Your task to perform on an android device: open app "Booking.com: Hotels and more" (install if not already installed) and enter user name: "misting@outlook.com" and password: "blandly" Image 0: 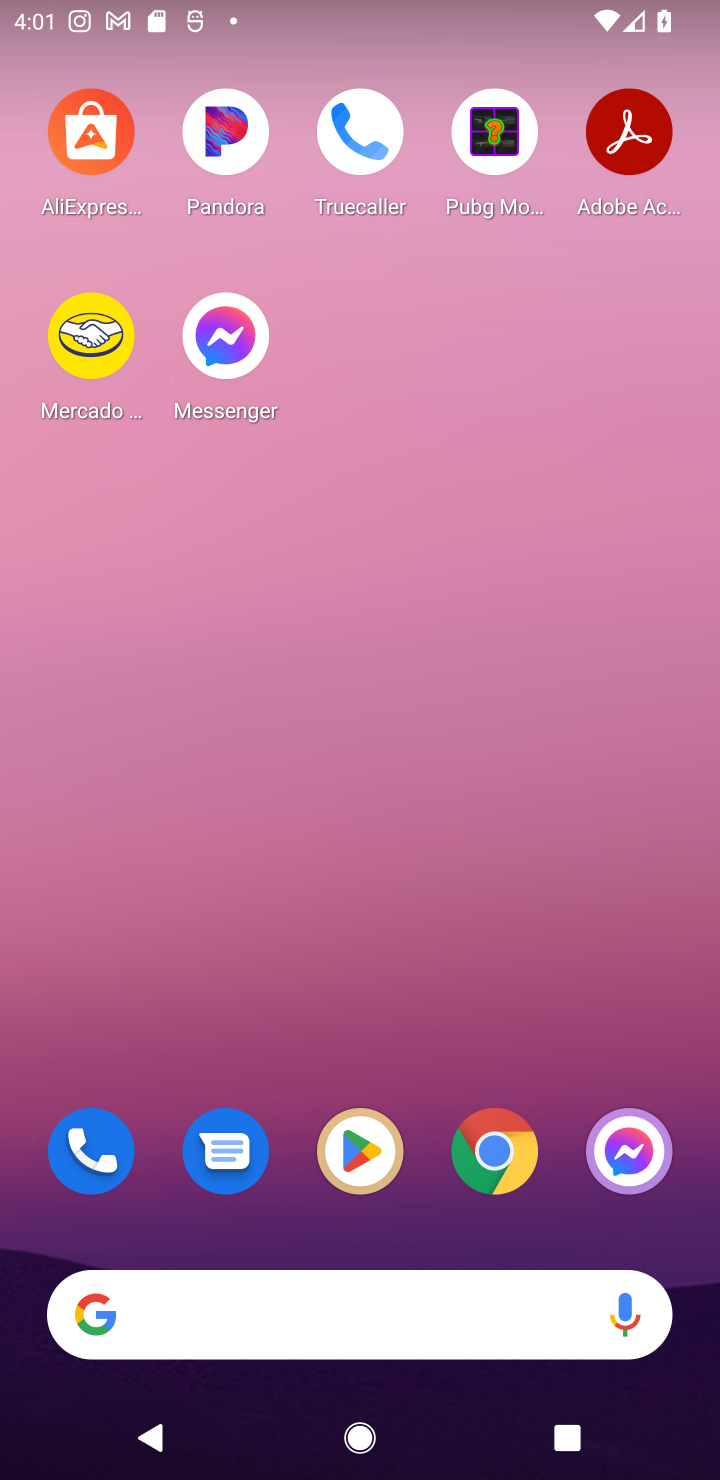
Step 0: press home button
Your task to perform on an android device: open app "Booking.com: Hotels and more" (install if not already installed) and enter user name: "misting@outlook.com" and password: "blandly" Image 1: 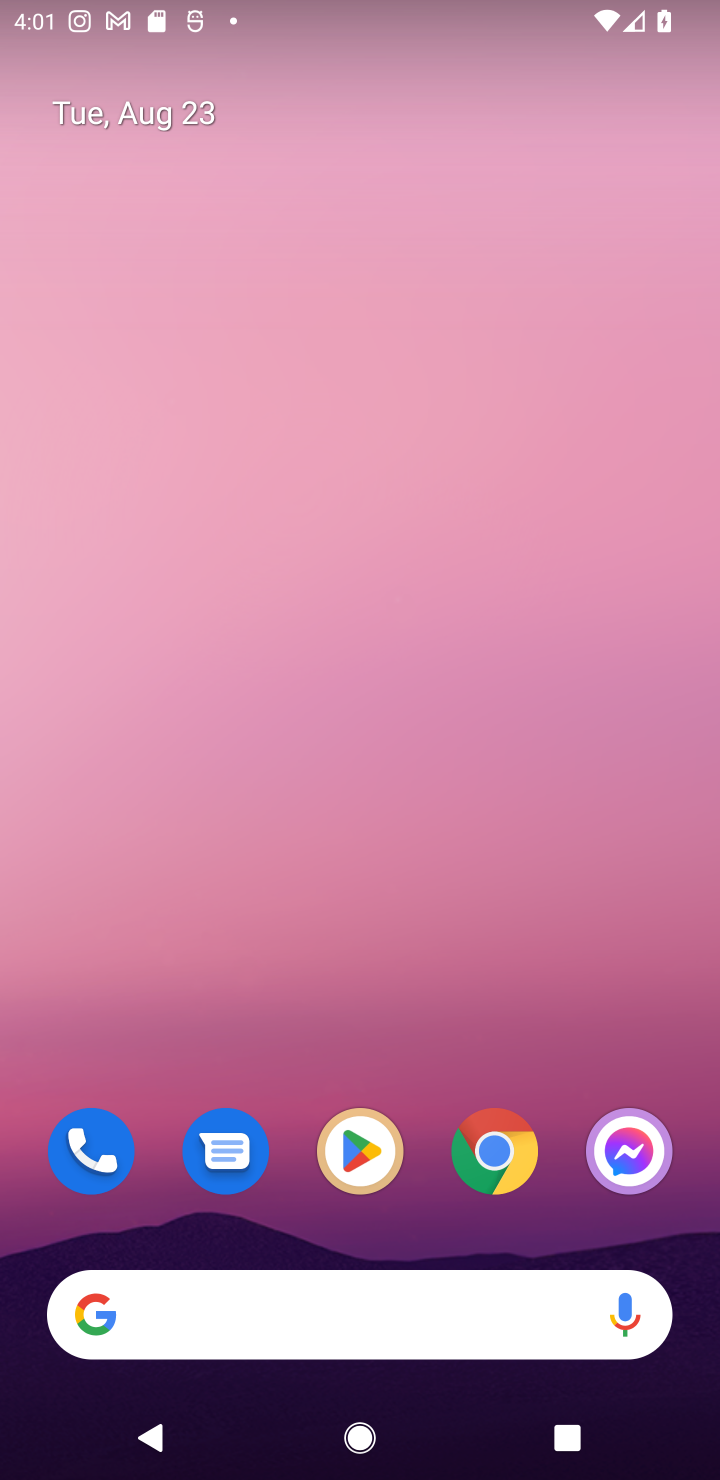
Step 1: click (365, 1146)
Your task to perform on an android device: open app "Booking.com: Hotels and more" (install if not already installed) and enter user name: "misting@outlook.com" and password: "blandly" Image 2: 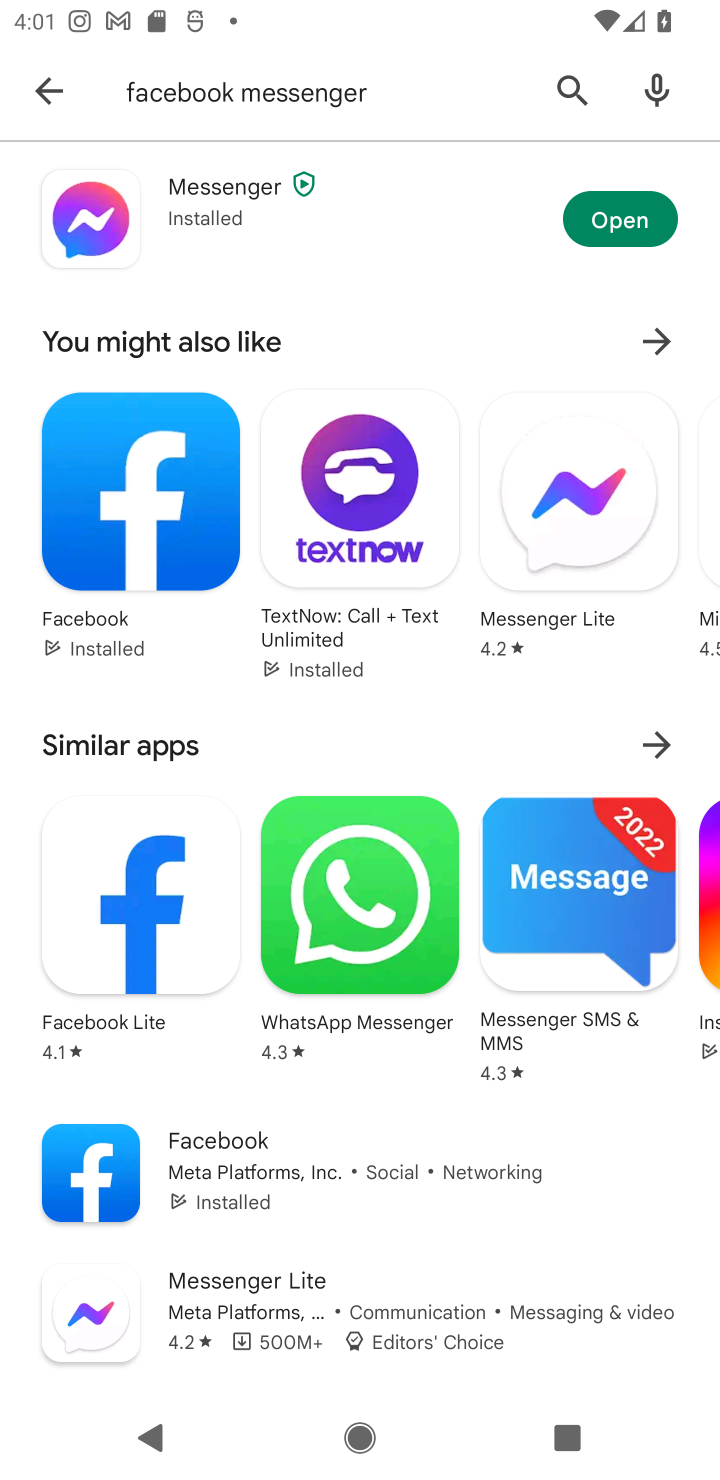
Step 2: click (365, 1152)
Your task to perform on an android device: open app "Booking.com: Hotels and more" (install if not already installed) and enter user name: "misting@outlook.com" and password: "blandly" Image 3: 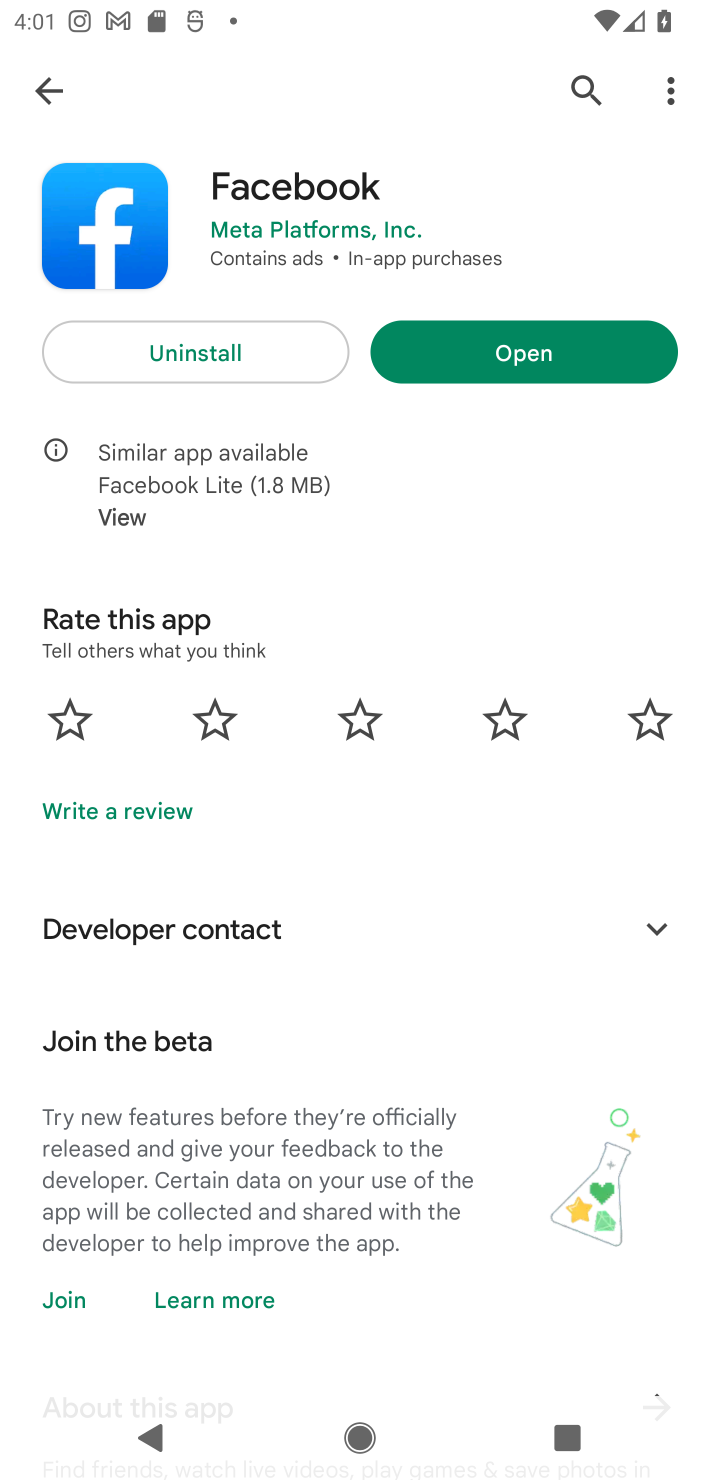
Step 3: click (593, 87)
Your task to perform on an android device: open app "Booking.com: Hotels and more" (install if not already installed) and enter user name: "misting@outlook.com" and password: "blandly" Image 4: 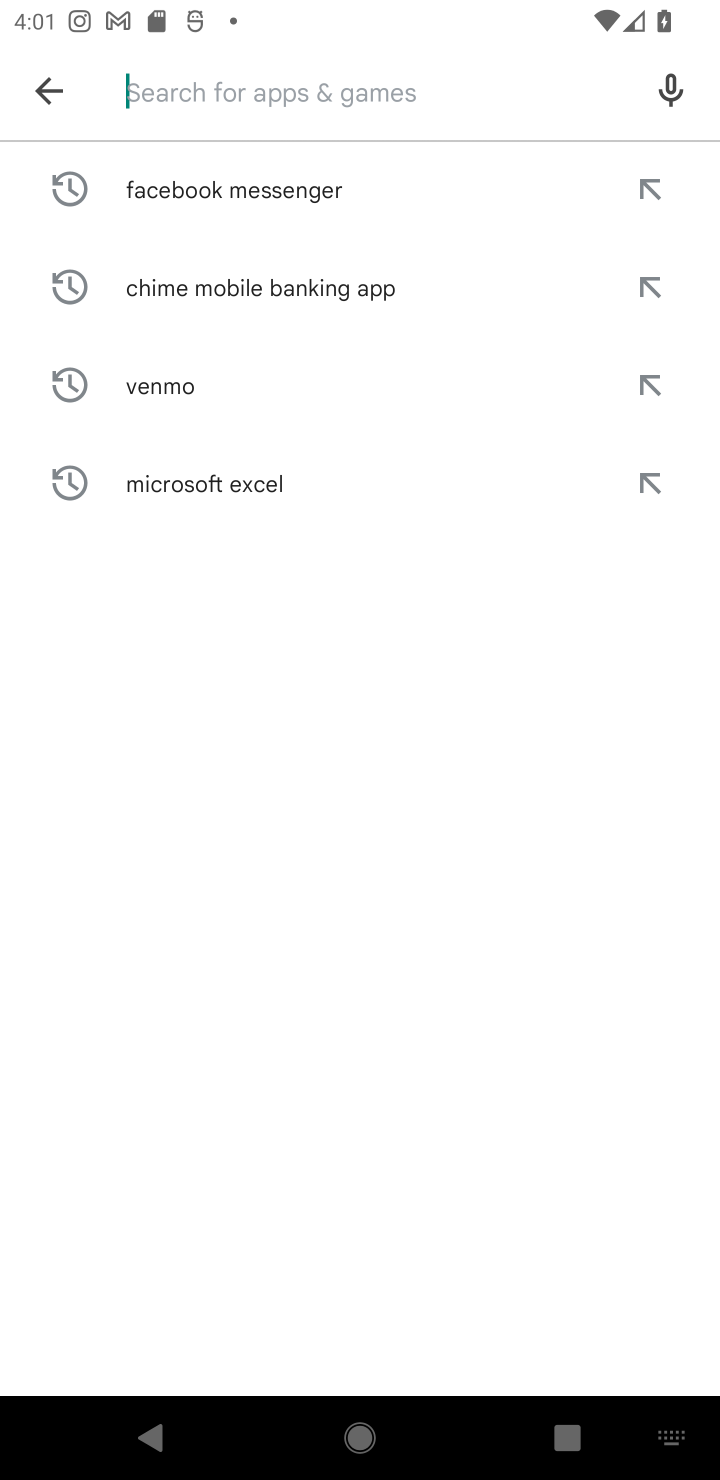
Step 4: type "Booking.com: Hotels and more"
Your task to perform on an android device: open app "Booking.com: Hotels and more" (install if not already installed) and enter user name: "misting@outlook.com" and password: "blandly" Image 5: 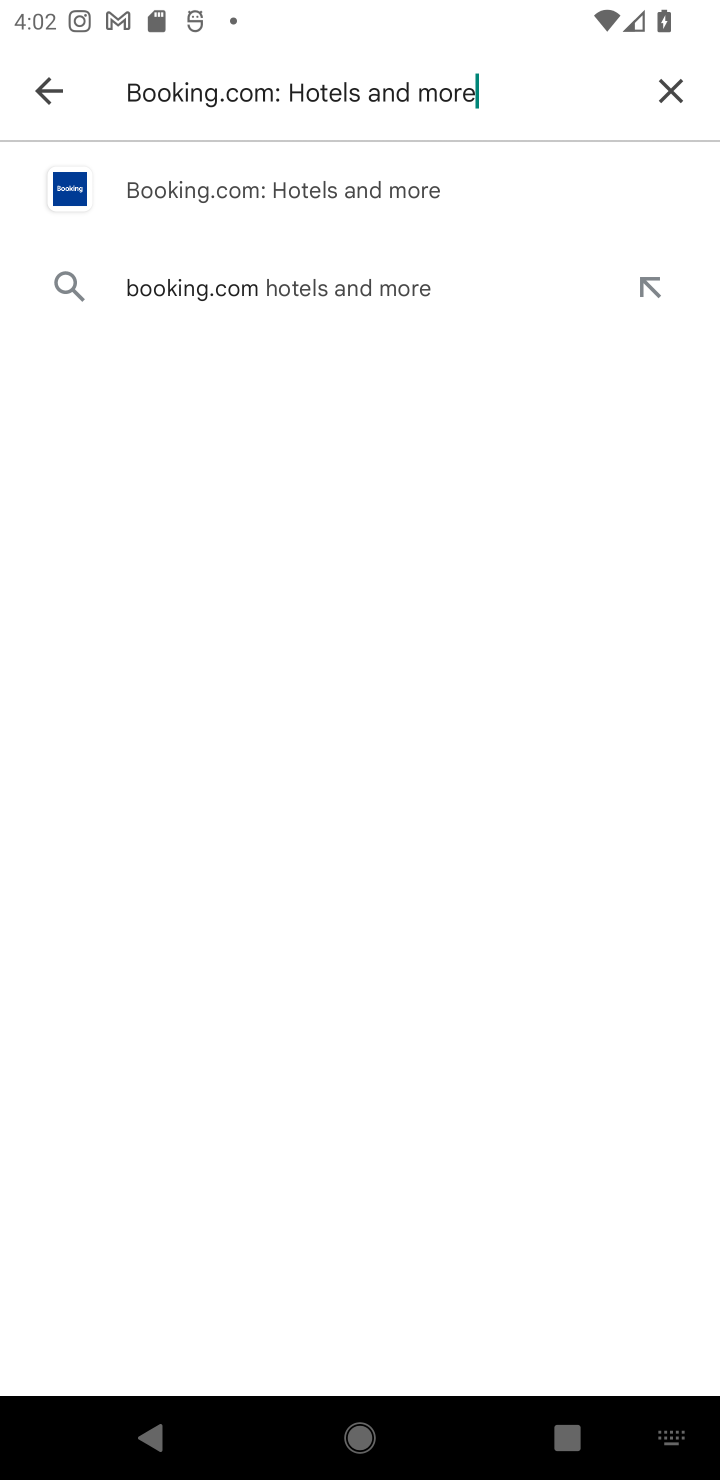
Step 5: click (282, 192)
Your task to perform on an android device: open app "Booking.com: Hotels and more" (install if not already installed) and enter user name: "misting@outlook.com" and password: "blandly" Image 6: 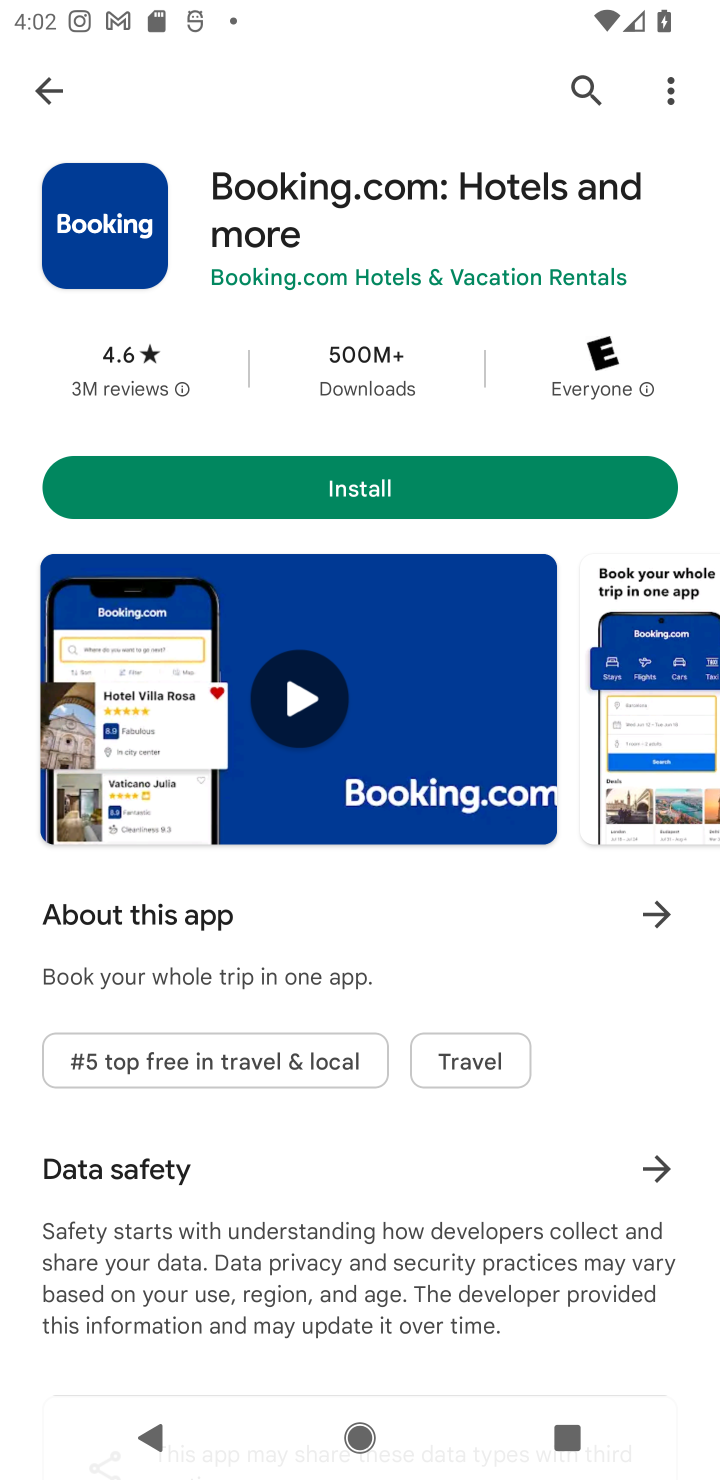
Step 6: click (405, 488)
Your task to perform on an android device: open app "Booking.com: Hotels and more" (install if not already installed) and enter user name: "misting@outlook.com" and password: "blandly" Image 7: 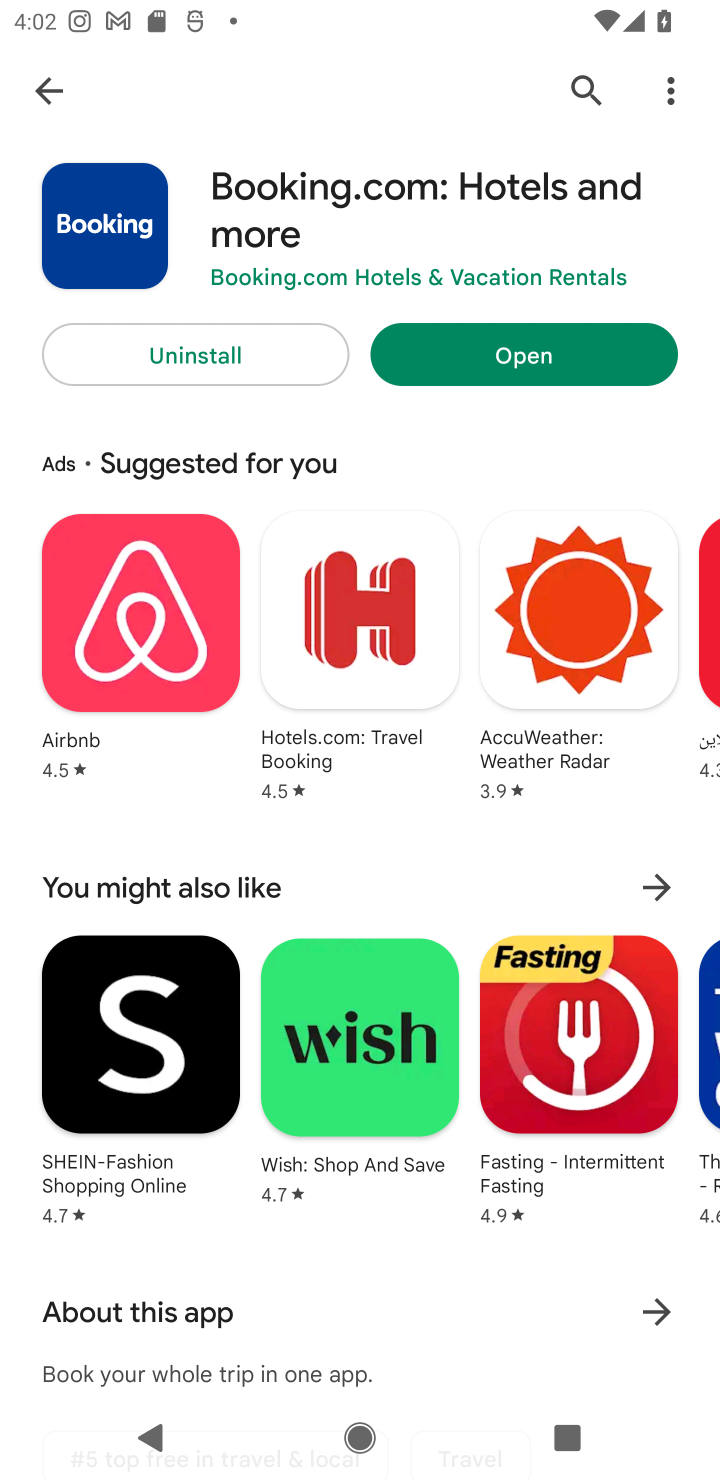
Step 7: click (564, 363)
Your task to perform on an android device: open app "Booking.com: Hotels and more" (install if not already installed) and enter user name: "misting@outlook.com" and password: "blandly" Image 8: 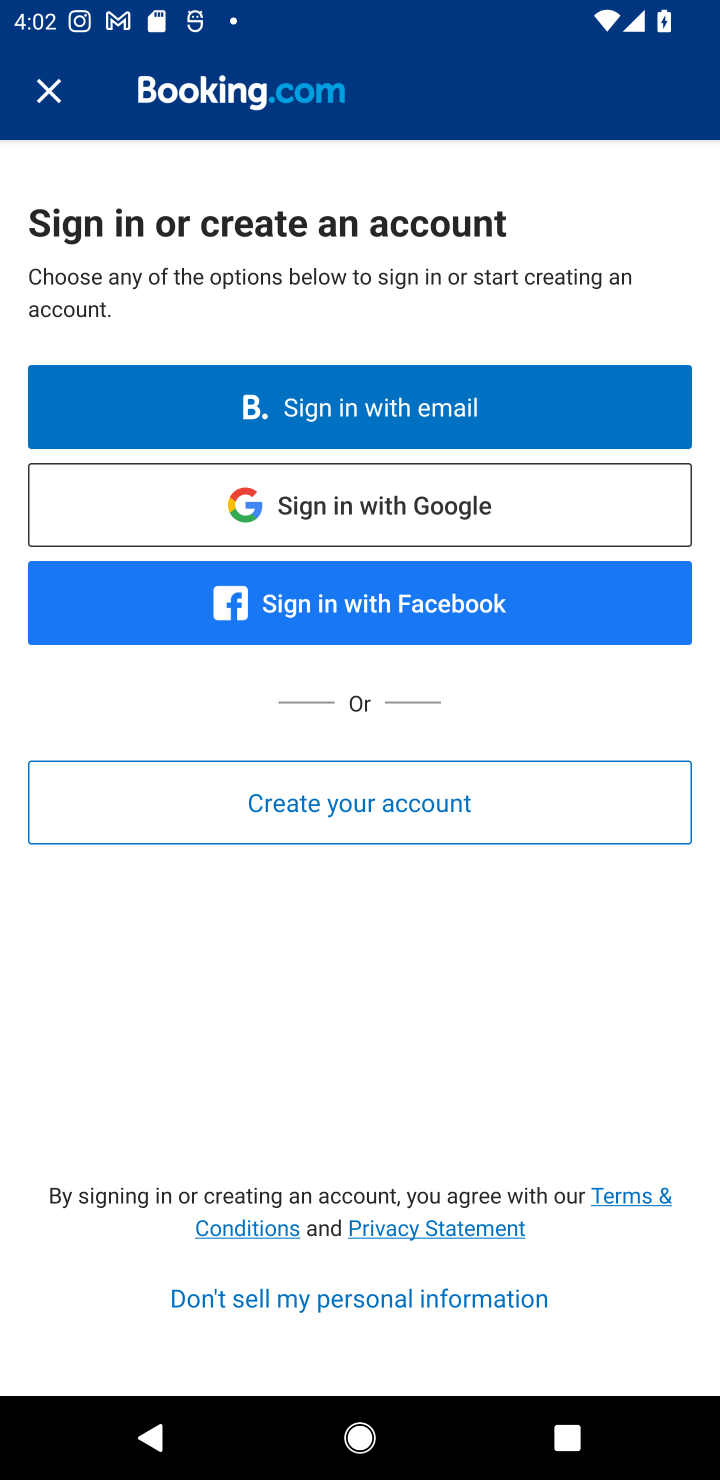
Step 8: click (423, 403)
Your task to perform on an android device: open app "Booking.com: Hotels and more" (install if not already installed) and enter user name: "misting@outlook.com" and password: "blandly" Image 9: 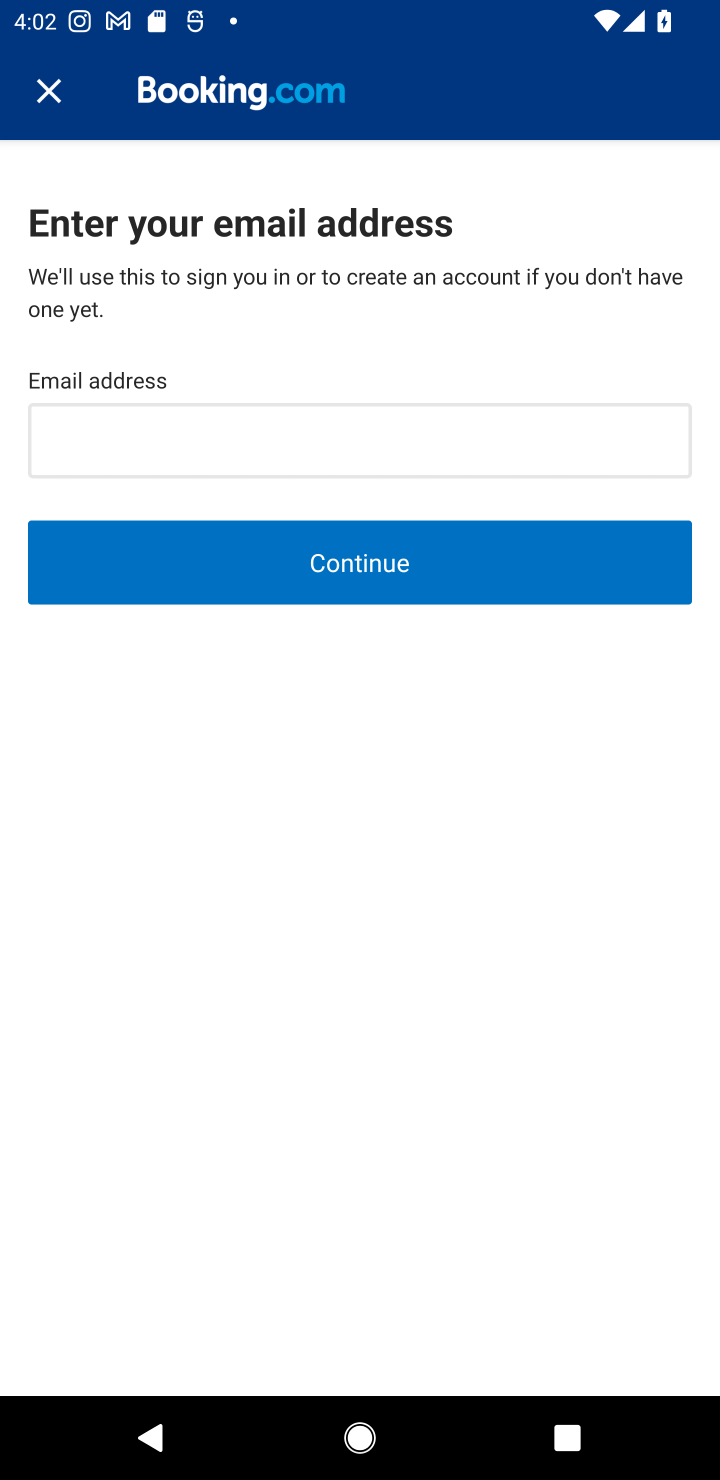
Step 9: click (101, 439)
Your task to perform on an android device: open app "Booking.com: Hotels and more" (install if not already installed) and enter user name: "misting@outlook.com" and password: "blandly" Image 10: 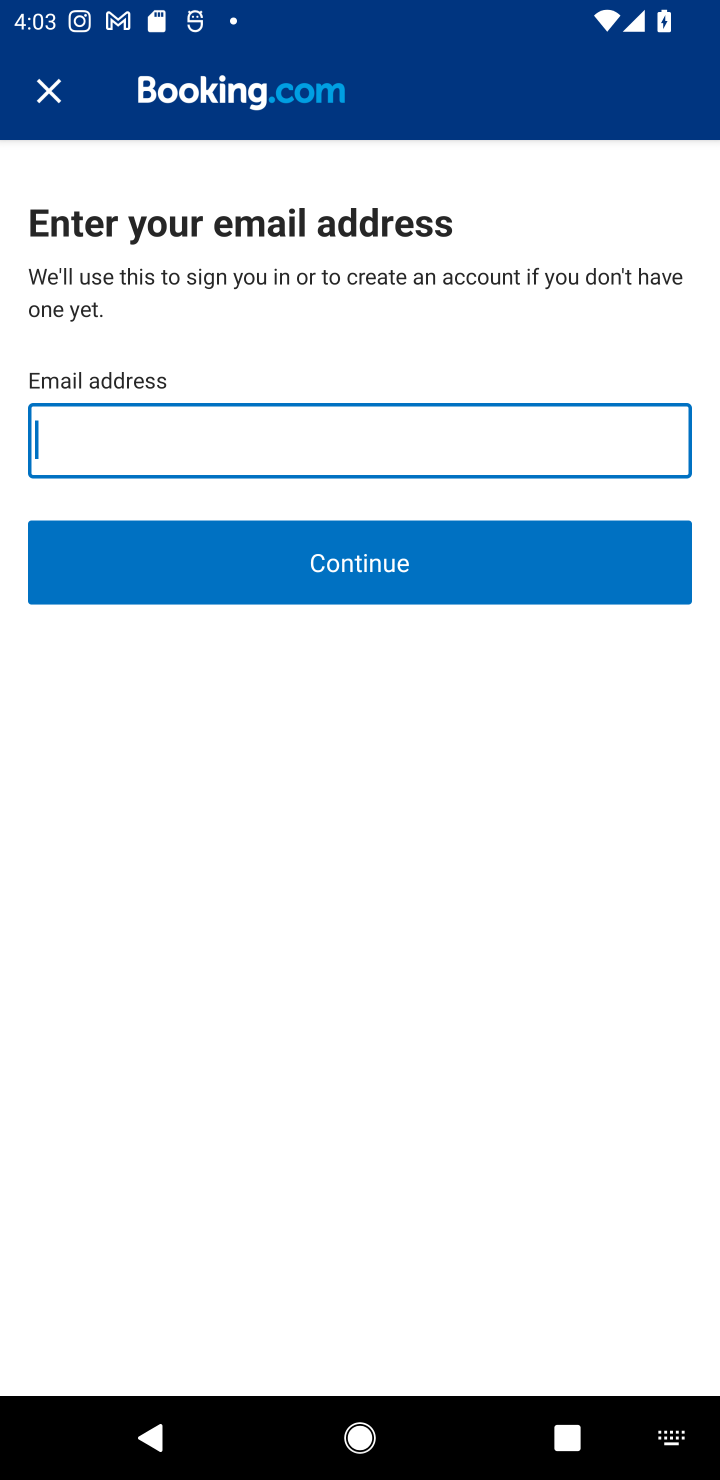
Step 10: type "misting@outlook.com"
Your task to perform on an android device: open app "Booking.com: Hotels and more" (install if not already installed) and enter user name: "misting@outlook.com" and password: "blandly" Image 11: 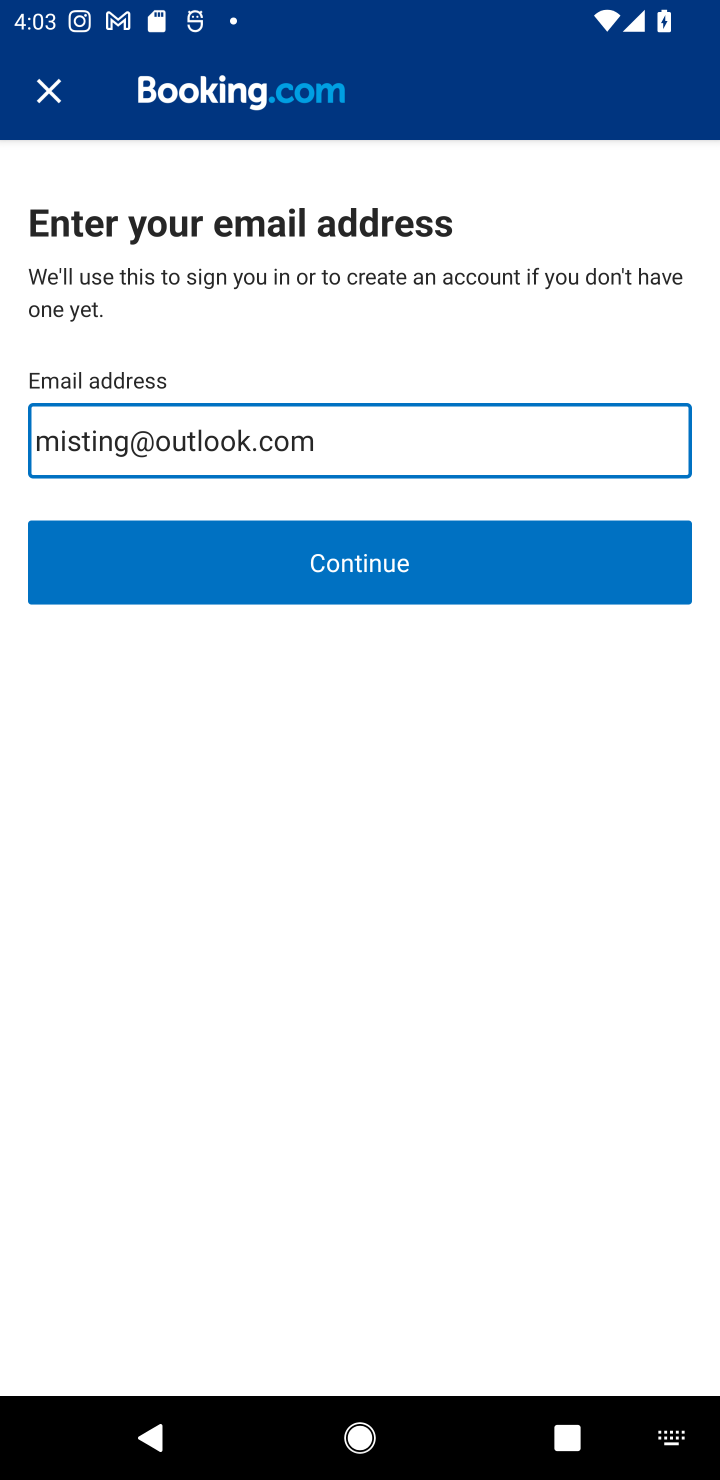
Step 11: click (366, 565)
Your task to perform on an android device: open app "Booking.com: Hotels and more" (install if not already installed) and enter user name: "misting@outlook.com" and password: "blandly" Image 12: 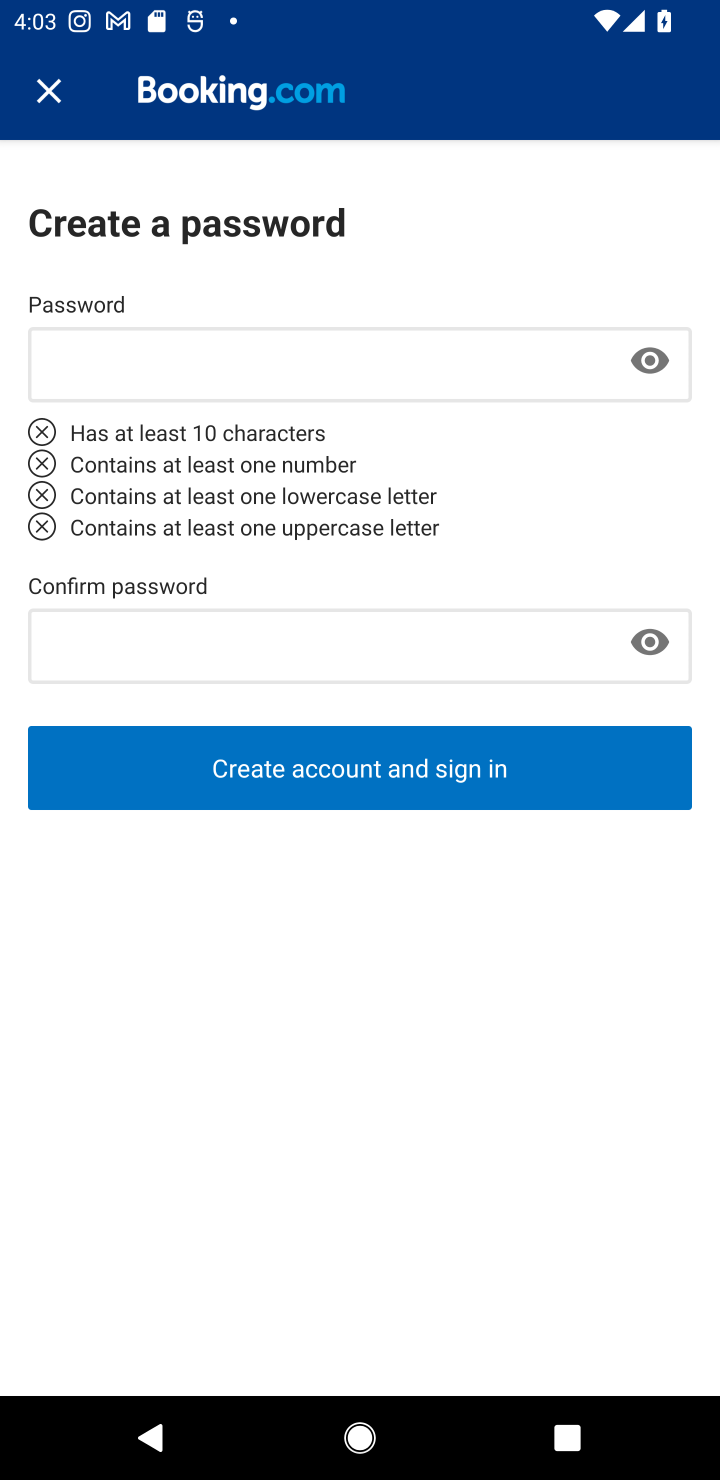
Step 12: click (106, 359)
Your task to perform on an android device: open app "Booking.com: Hotels and more" (install if not already installed) and enter user name: "misting@outlook.com" and password: "blandly" Image 13: 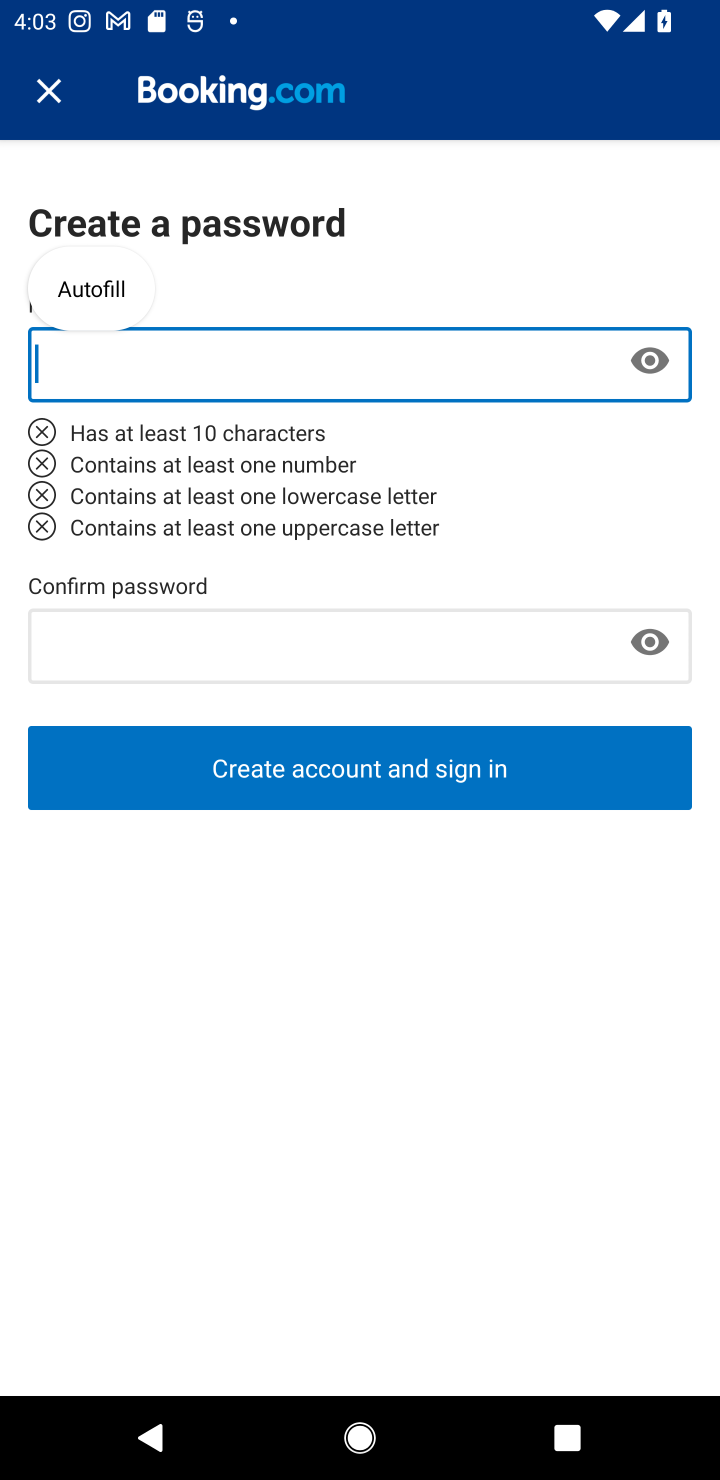
Step 13: type "blandly"
Your task to perform on an android device: open app "Booking.com: Hotels and more" (install if not already installed) and enter user name: "misting@outlook.com" and password: "blandly" Image 14: 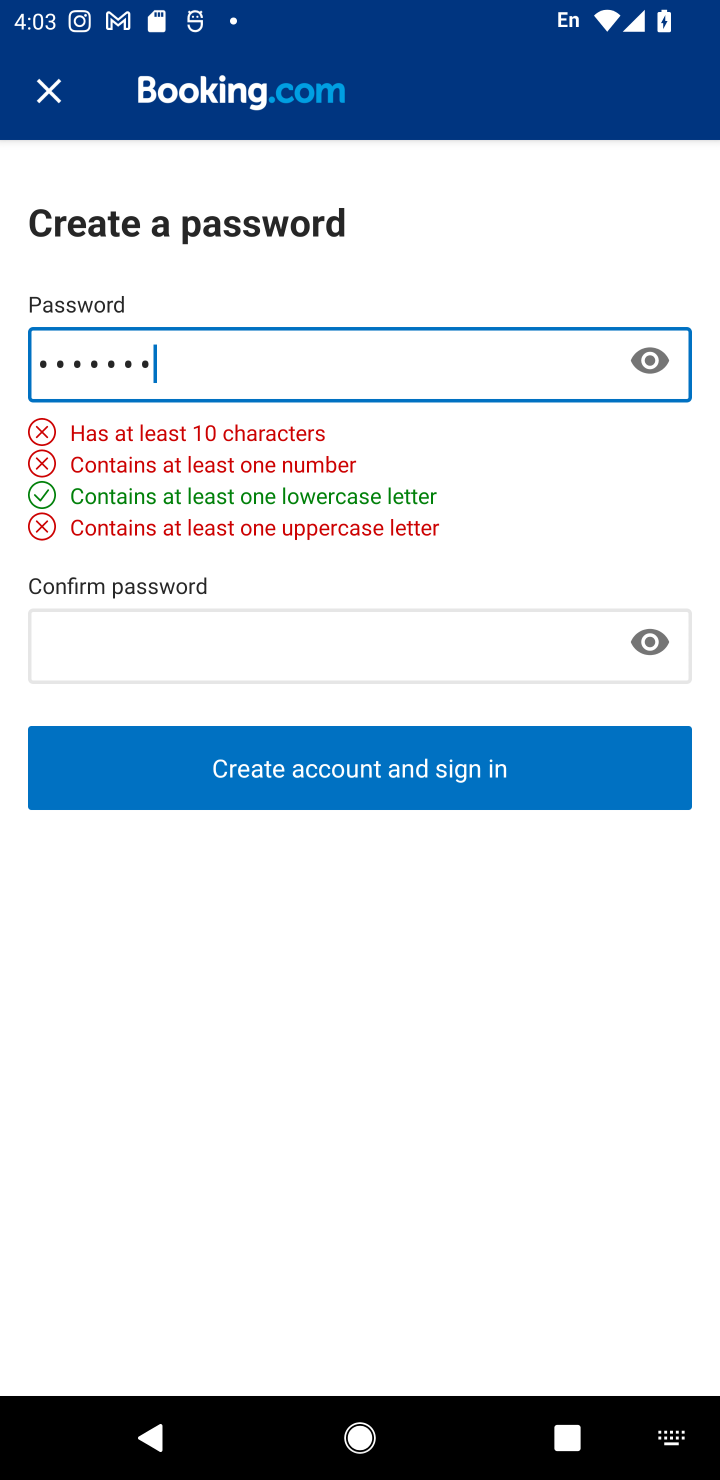
Step 14: task complete